Your task to perform on an android device: Go to Google Image 0: 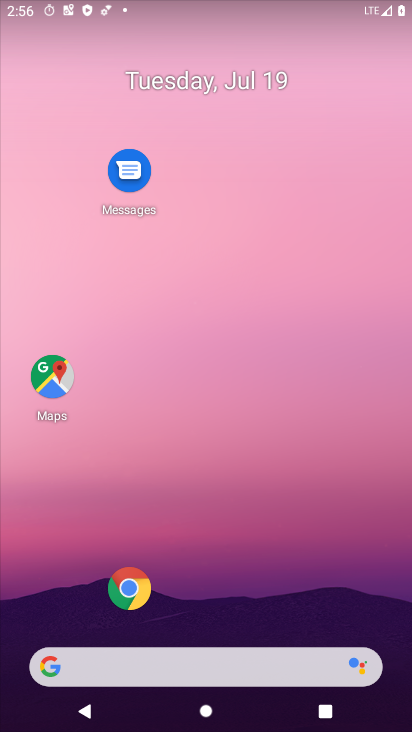
Step 0: drag from (44, 698) to (249, 9)
Your task to perform on an android device: Go to Google Image 1: 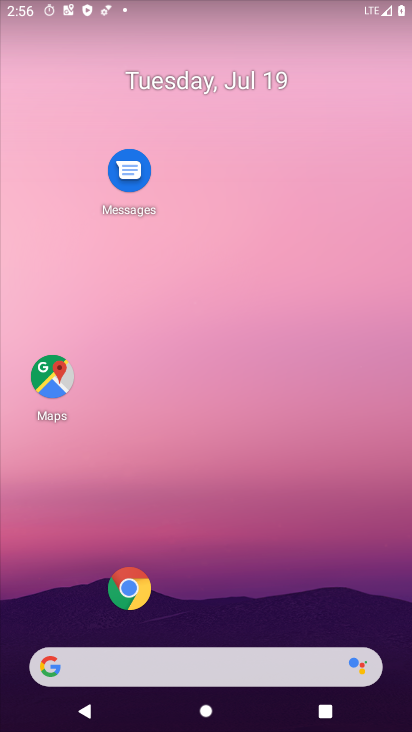
Step 1: click (114, 664)
Your task to perform on an android device: Go to Google Image 2: 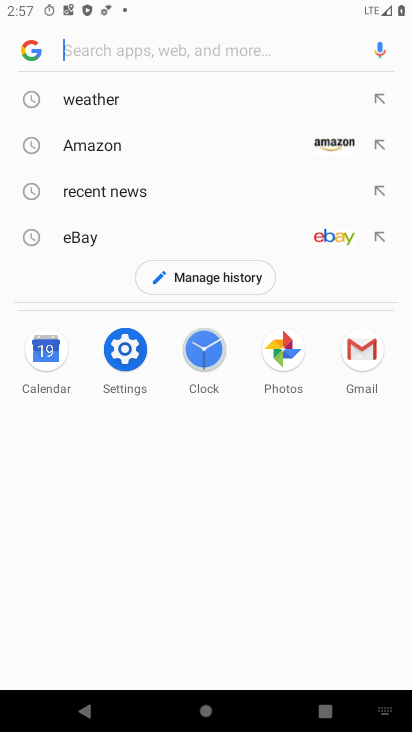
Step 2: task complete